Your task to perform on an android device: View the shopping cart on target.com. Add "jbl flip 4" to the cart on target.com, then select checkout. Image 0: 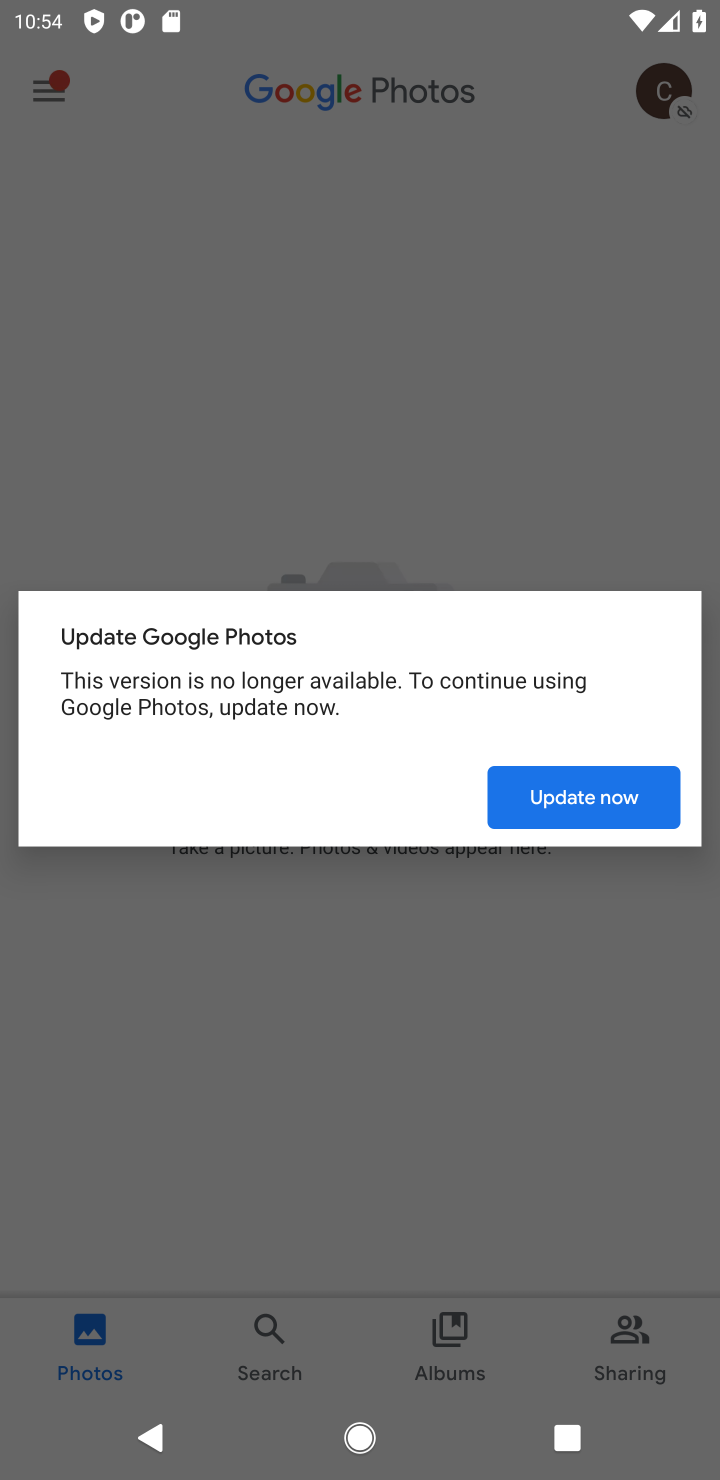
Step 0: press home button
Your task to perform on an android device: View the shopping cart on target.com. Add "jbl flip 4" to the cart on target.com, then select checkout. Image 1: 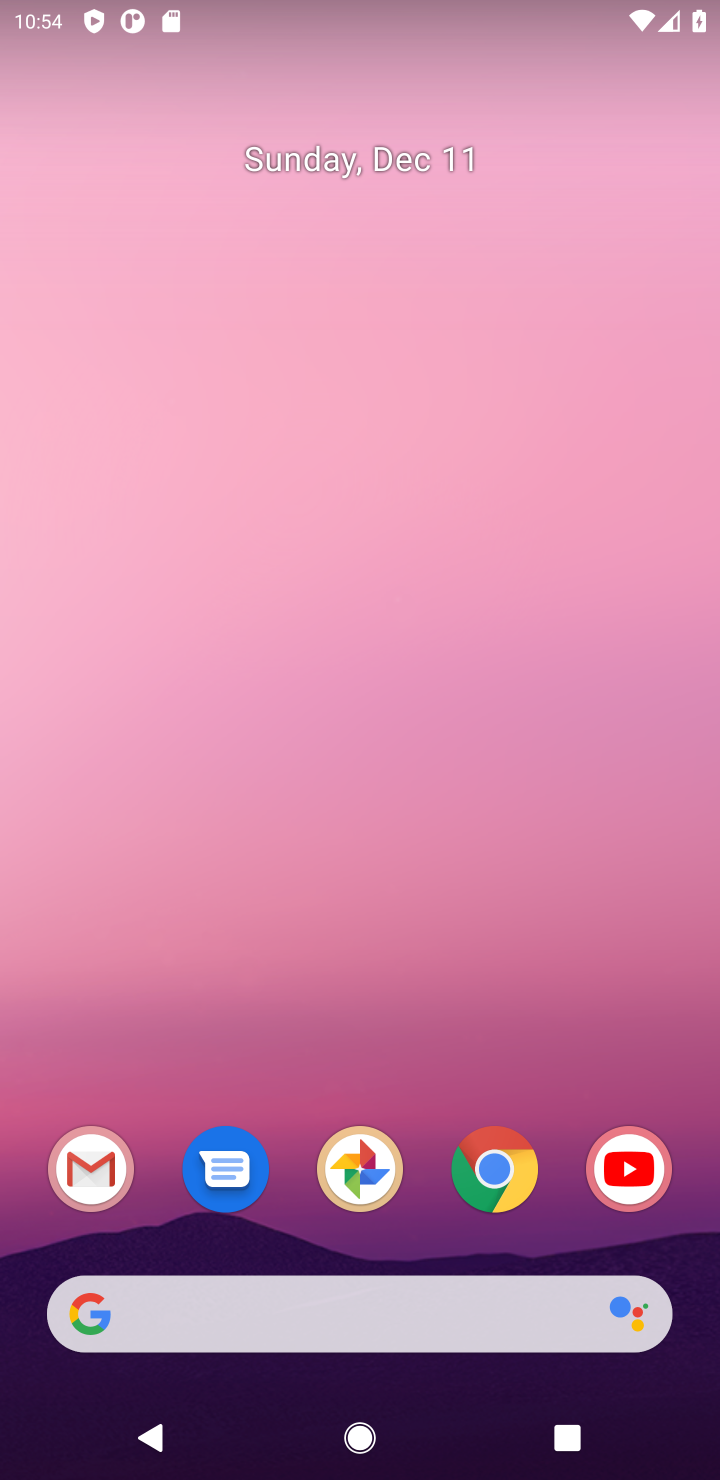
Step 1: click (468, 1142)
Your task to perform on an android device: View the shopping cart on target.com. Add "jbl flip 4" to the cart on target.com, then select checkout. Image 2: 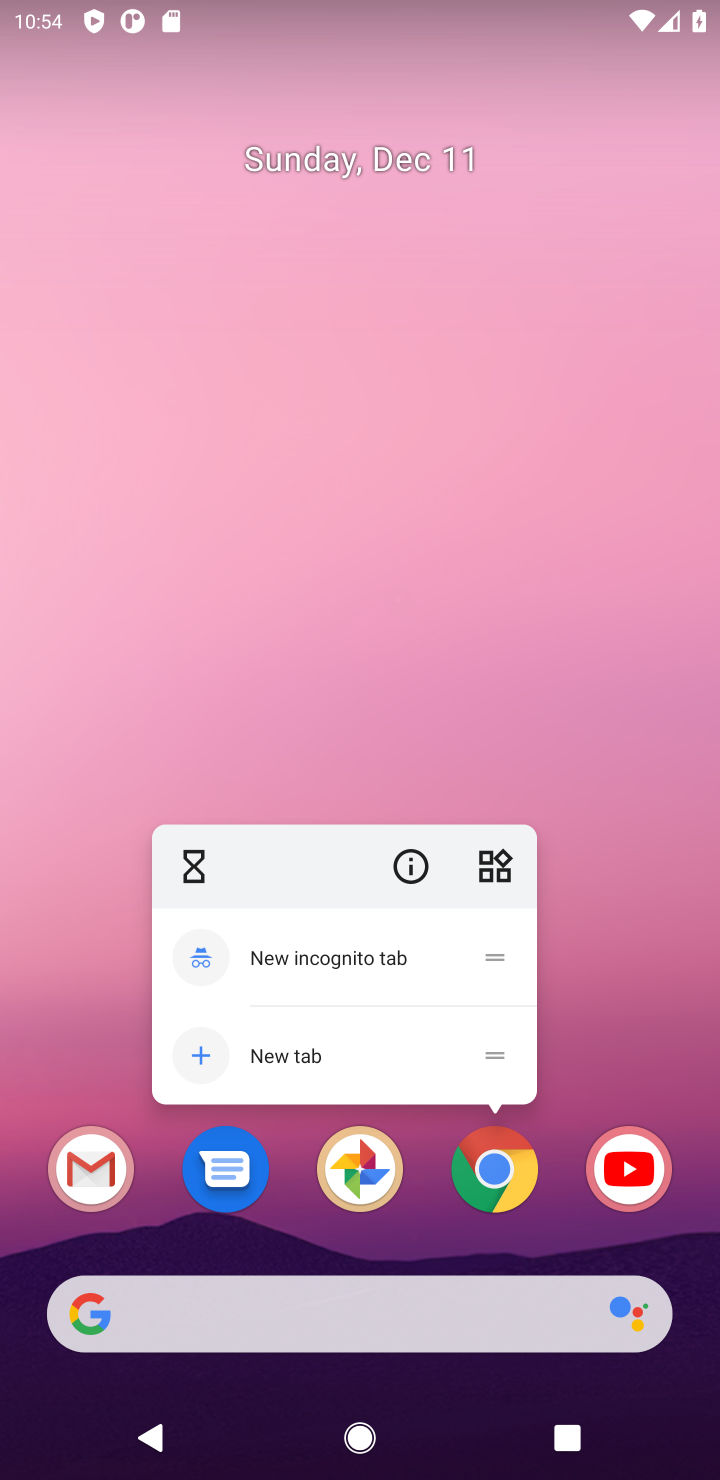
Step 2: click (486, 1172)
Your task to perform on an android device: View the shopping cart on target.com. Add "jbl flip 4" to the cart on target.com, then select checkout. Image 3: 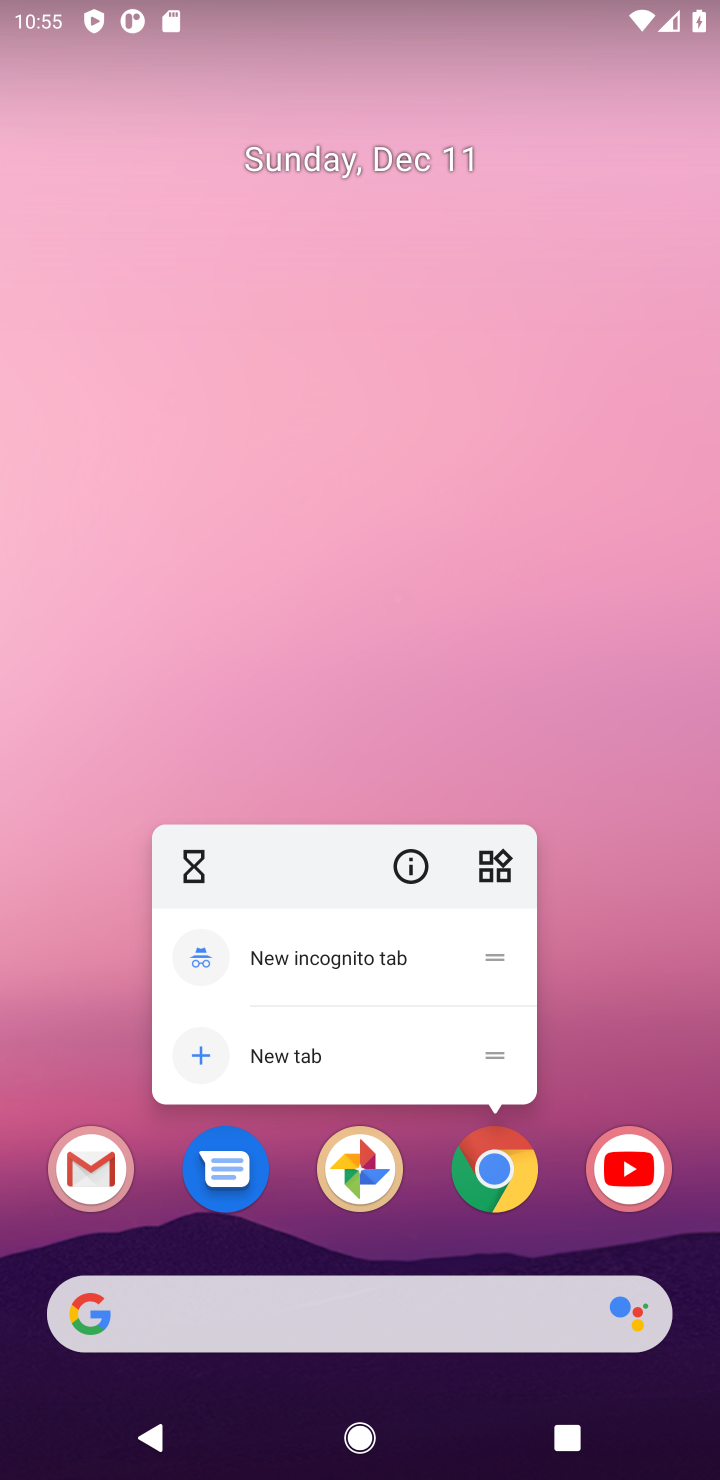
Step 3: click (488, 1172)
Your task to perform on an android device: View the shopping cart on target.com. Add "jbl flip 4" to the cart on target.com, then select checkout. Image 4: 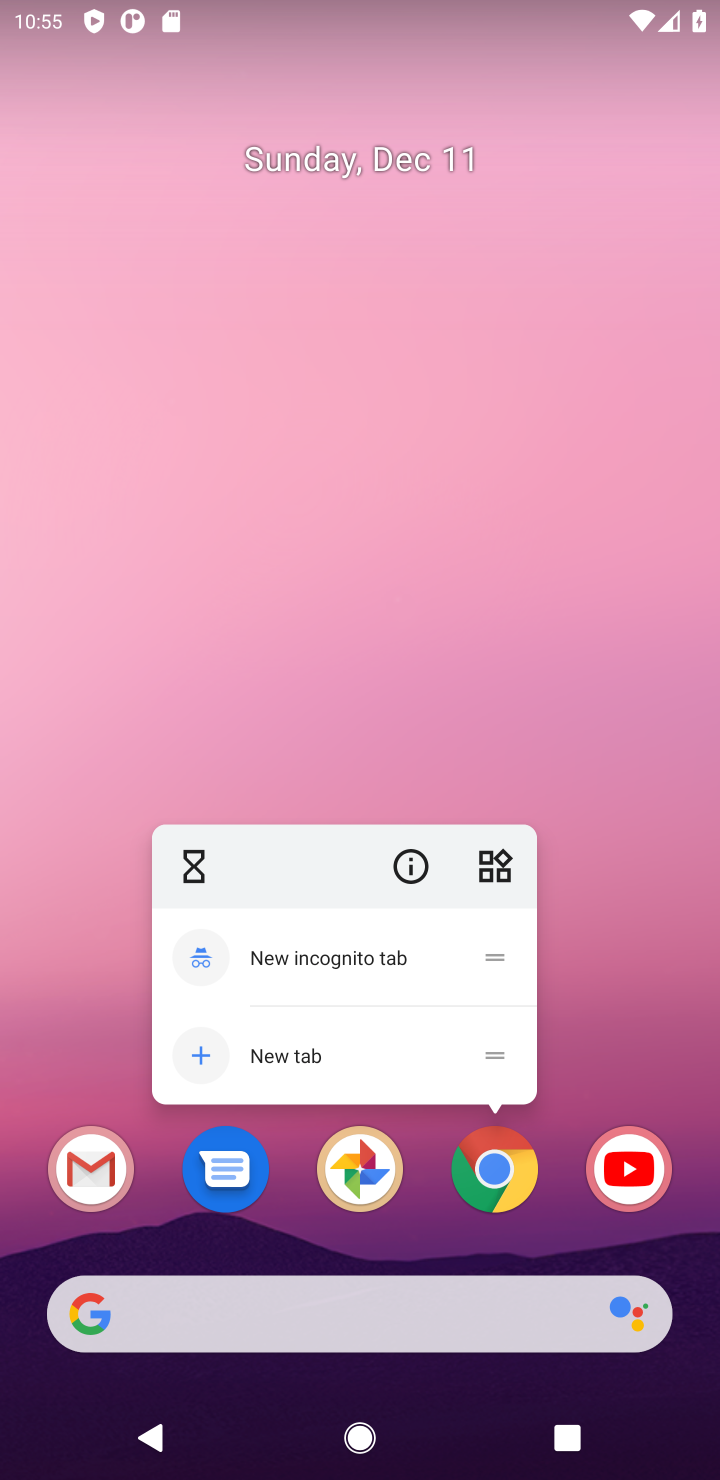
Step 4: click (633, 991)
Your task to perform on an android device: View the shopping cart on target.com. Add "jbl flip 4" to the cart on target.com, then select checkout. Image 5: 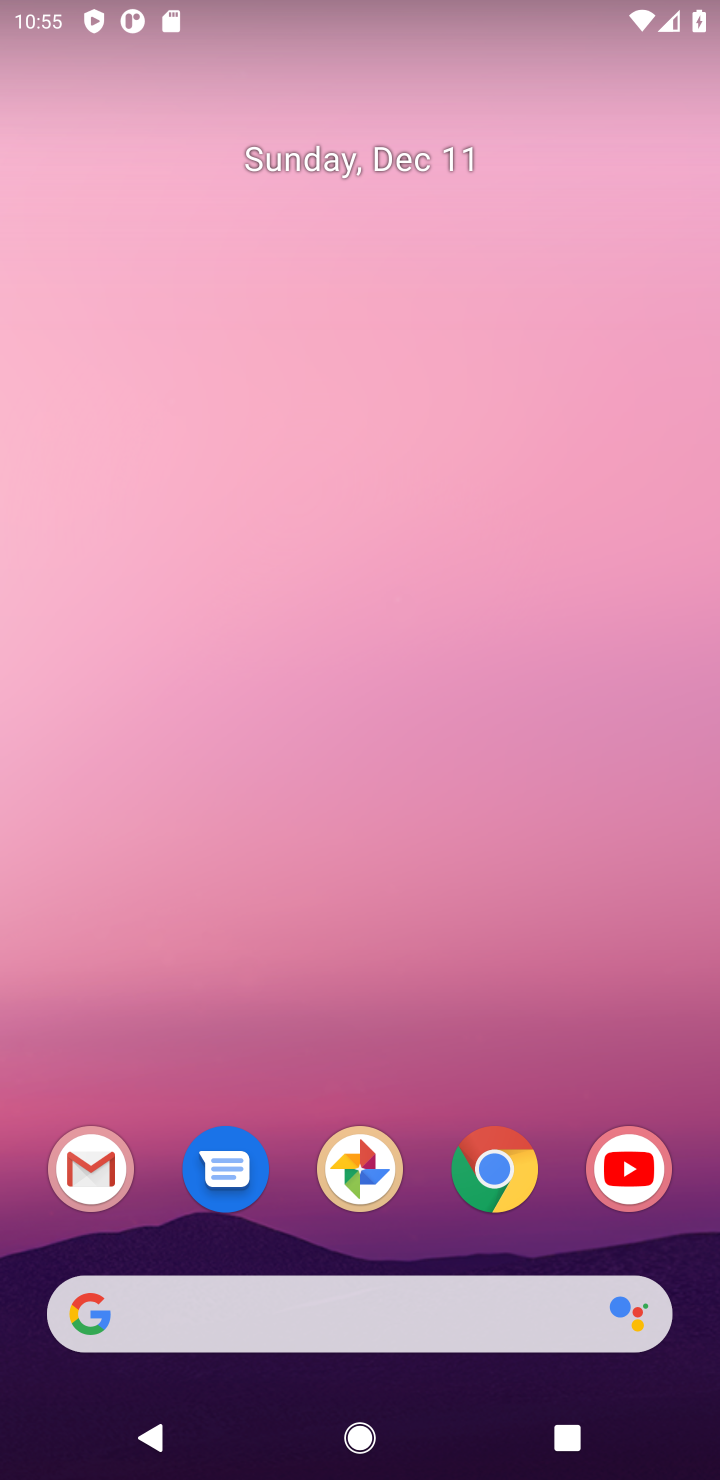
Step 5: click (508, 1179)
Your task to perform on an android device: View the shopping cart on target.com. Add "jbl flip 4" to the cart on target.com, then select checkout. Image 6: 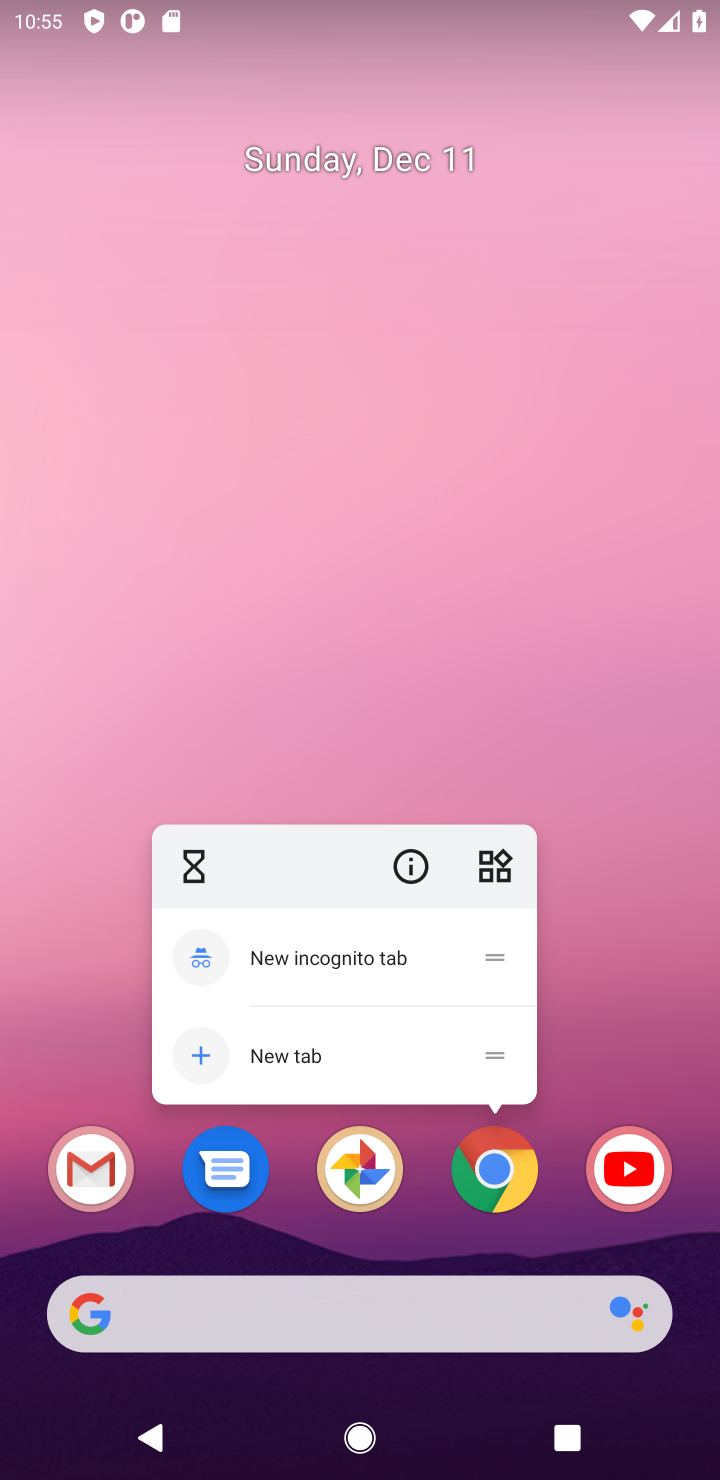
Step 6: click (508, 1179)
Your task to perform on an android device: View the shopping cart on target.com. Add "jbl flip 4" to the cart on target.com, then select checkout. Image 7: 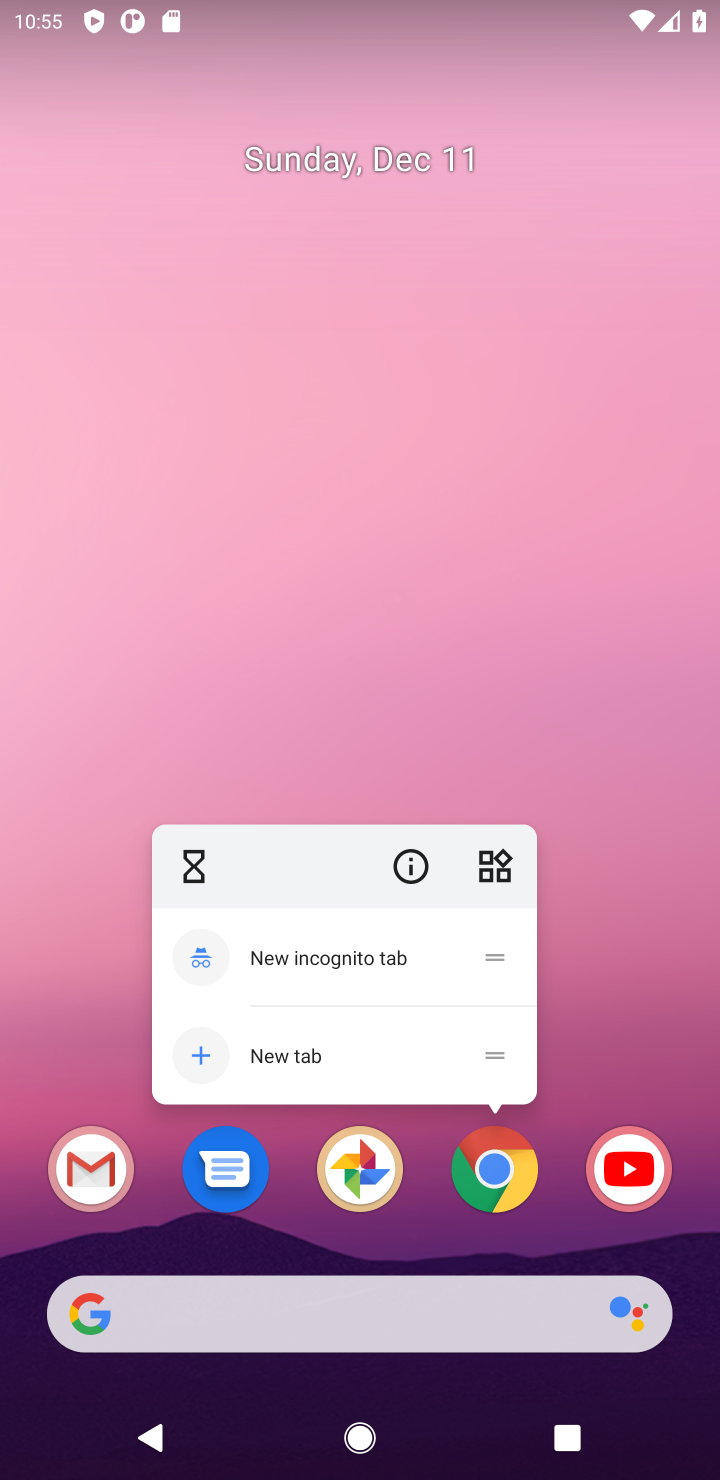
Step 7: click (500, 1176)
Your task to perform on an android device: View the shopping cart on target.com. Add "jbl flip 4" to the cart on target.com, then select checkout. Image 8: 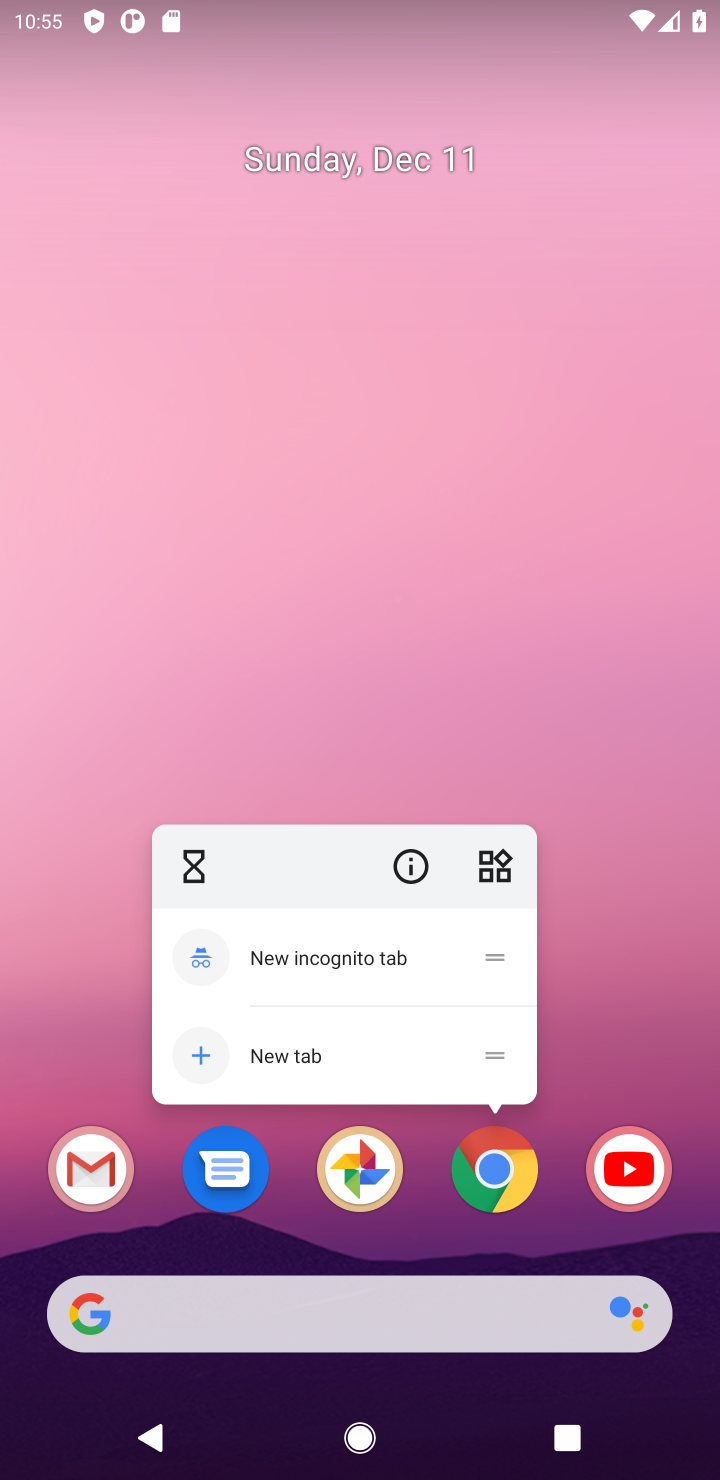
Step 8: click (500, 1176)
Your task to perform on an android device: View the shopping cart on target.com. Add "jbl flip 4" to the cart on target.com, then select checkout. Image 9: 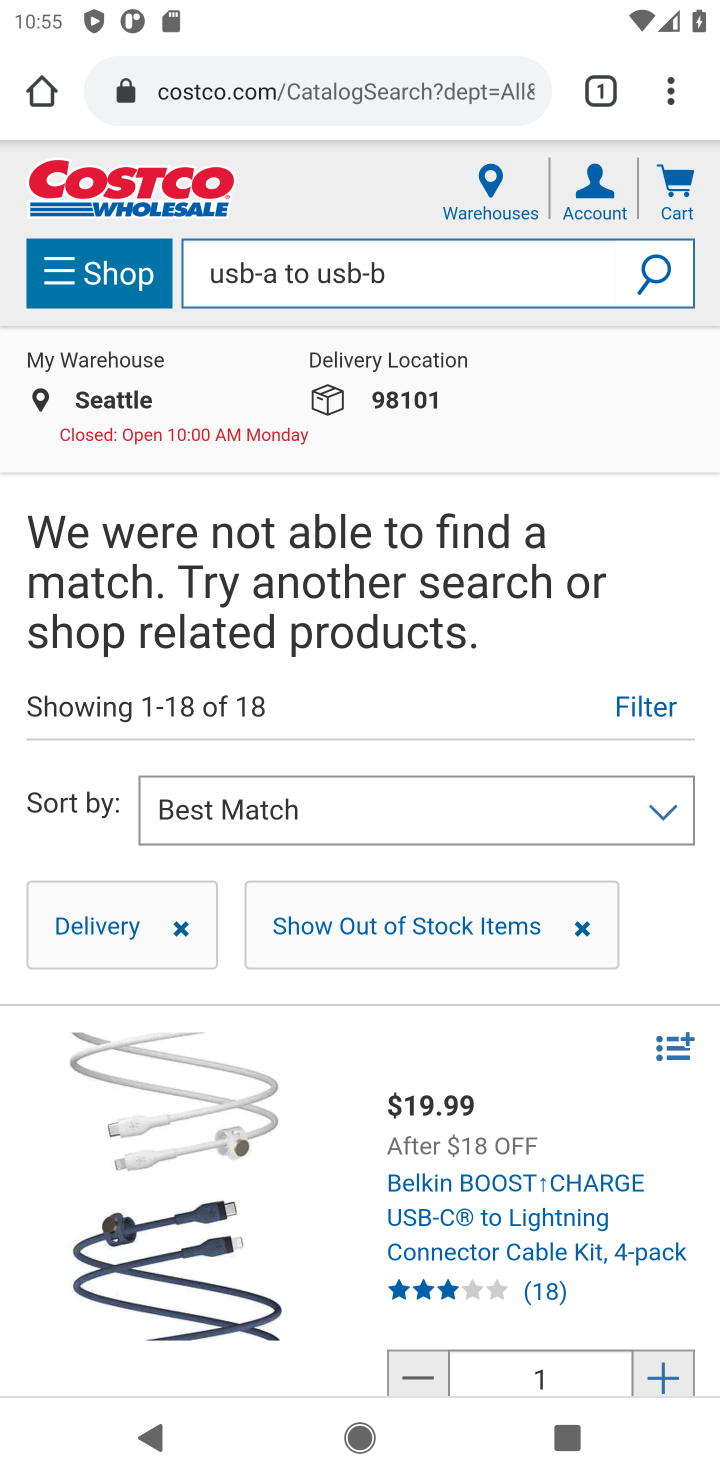
Step 9: click (319, 91)
Your task to perform on an android device: View the shopping cart on target.com. Add "jbl flip 4" to the cart on target.com, then select checkout. Image 10: 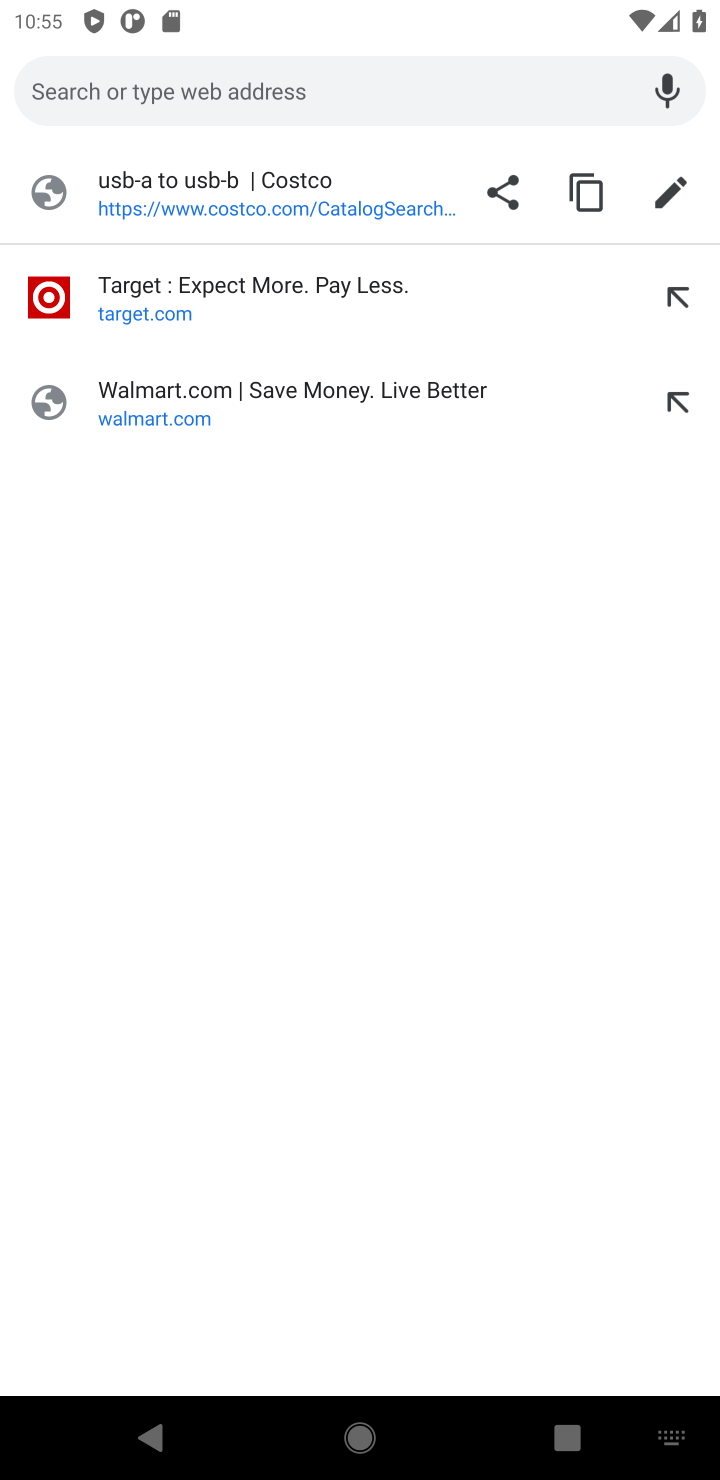
Step 10: click (155, 315)
Your task to perform on an android device: View the shopping cart on target.com. Add "jbl flip 4" to the cart on target.com, then select checkout. Image 11: 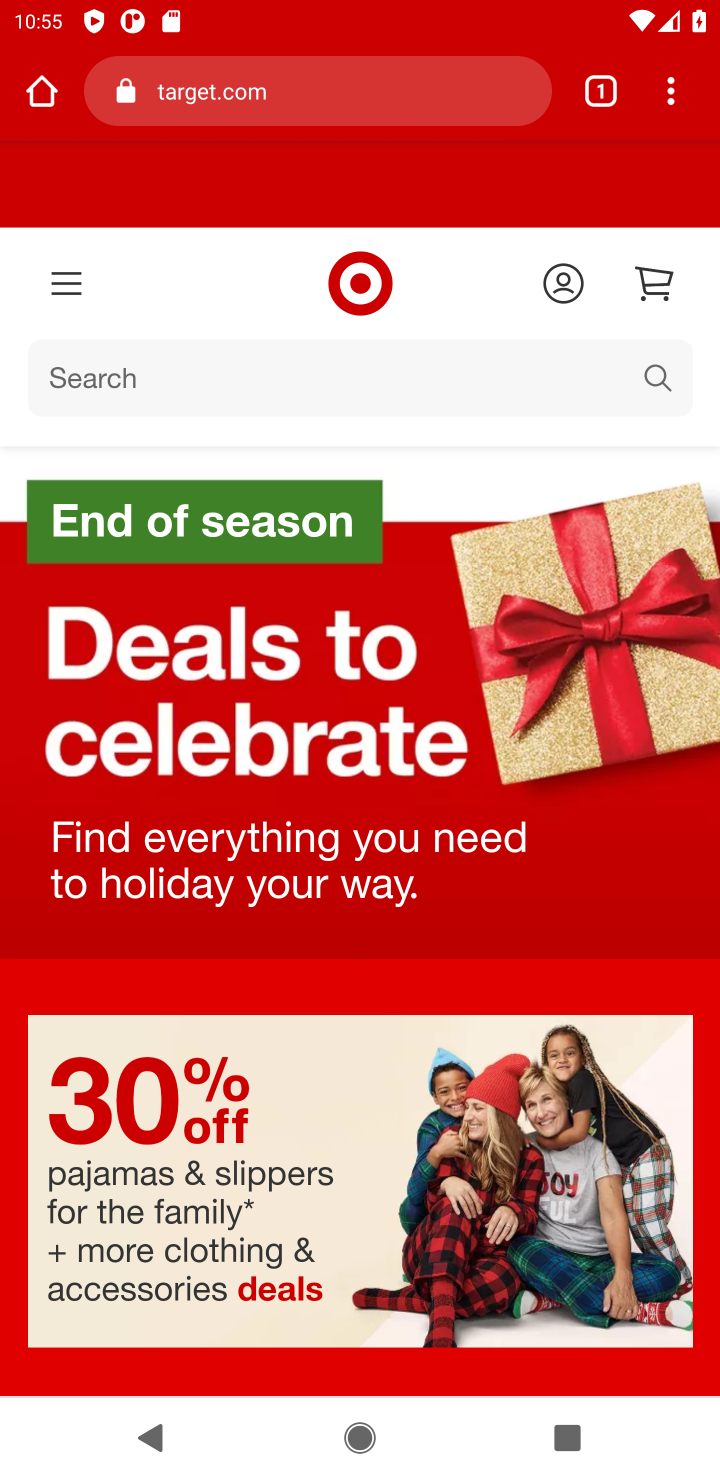
Step 11: click (656, 273)
Your task to perform on an android device: View the shopping cart on target.com. Add "jbl flip 4" to the cart on target.com, then select checkout. Image 12: 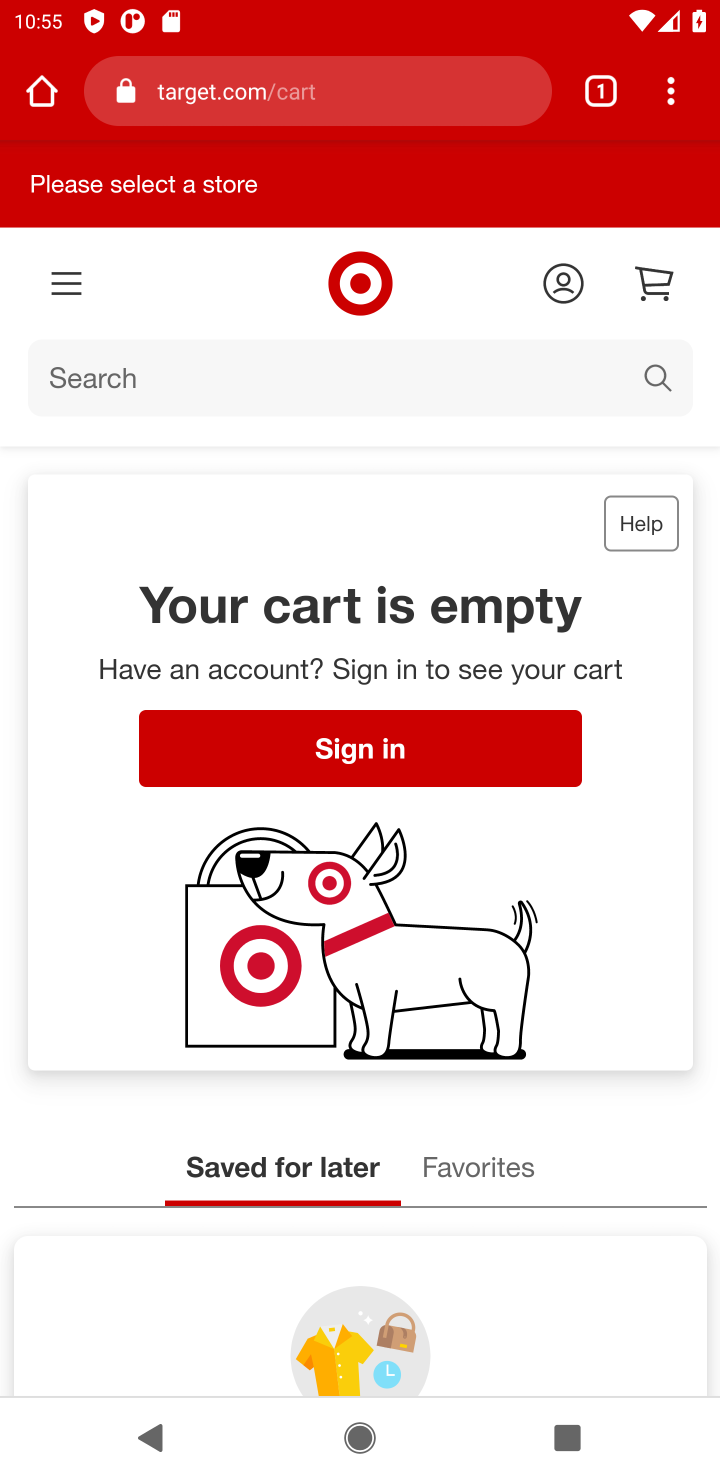
Step 12: click (102, 379)
Your task to perform on an android device: View the shopping cart on target.com. Add "jbl flip 4" to the cart on target.com, then select checkout. Image 13: 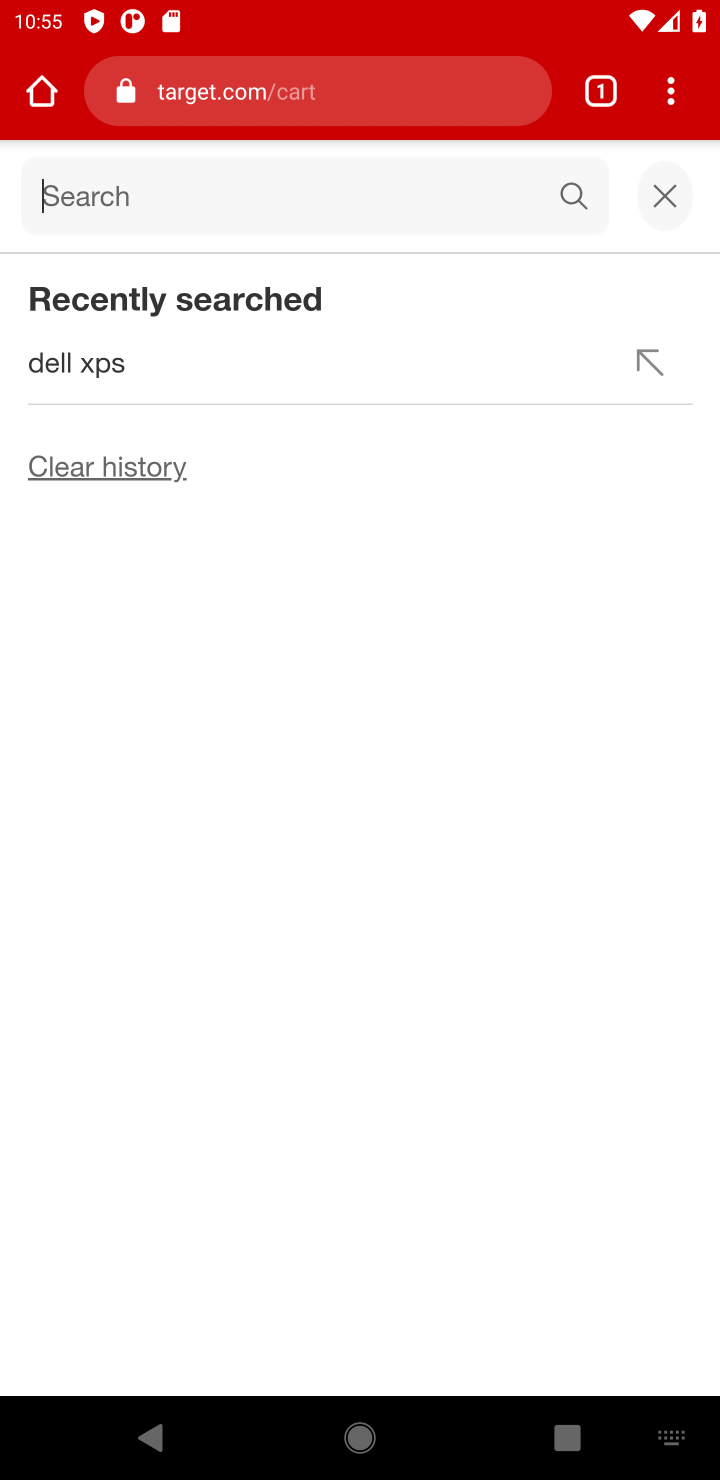
Step 13: type "jbl flip 4"
Your task to perform on an android device: View the shopping cart on target.com. Add "jbl flip 4" to the cart on target.com, then select checkout. Image 14: 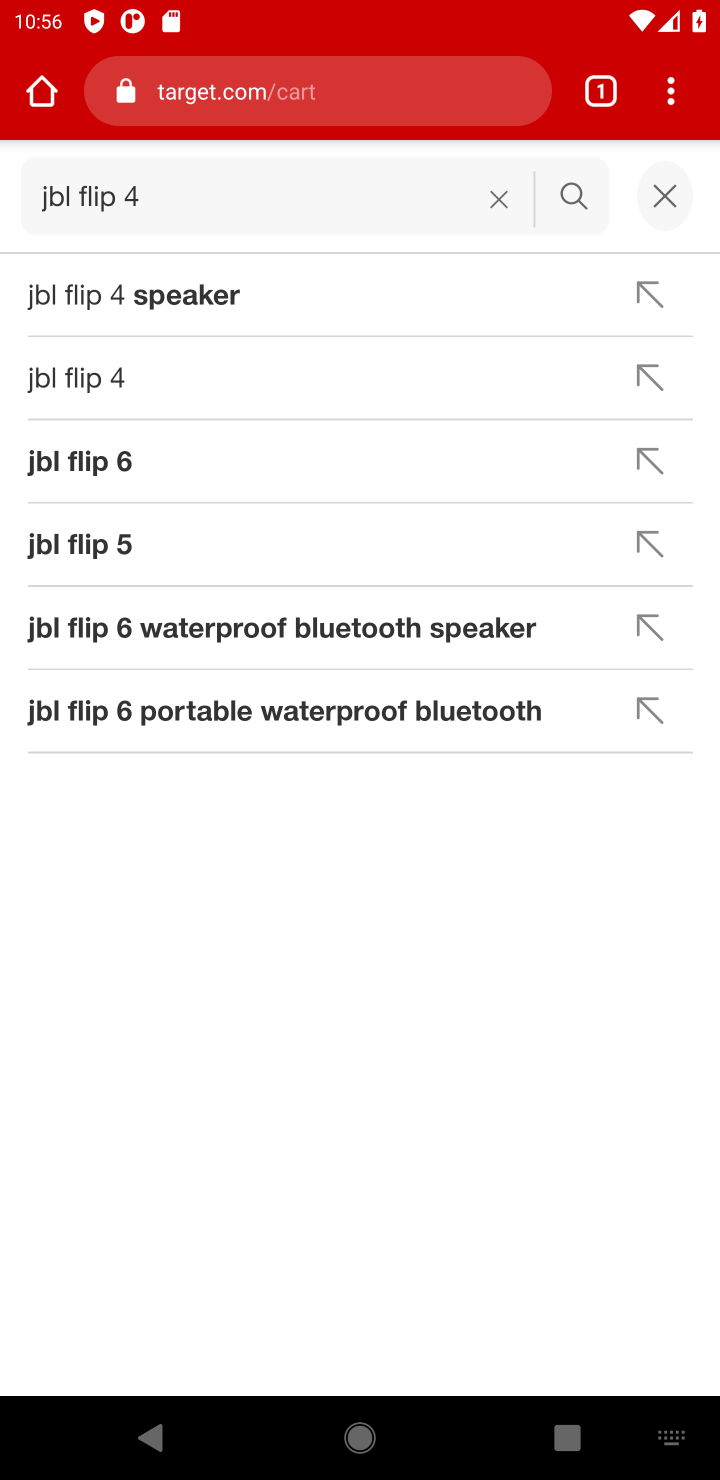
Step 14: click (79, 378)
Your task to perform on an android device: View the shopping cart on target.com. Add "jbl flip 4" to the cart on target.com, then select checkout. Image 15: 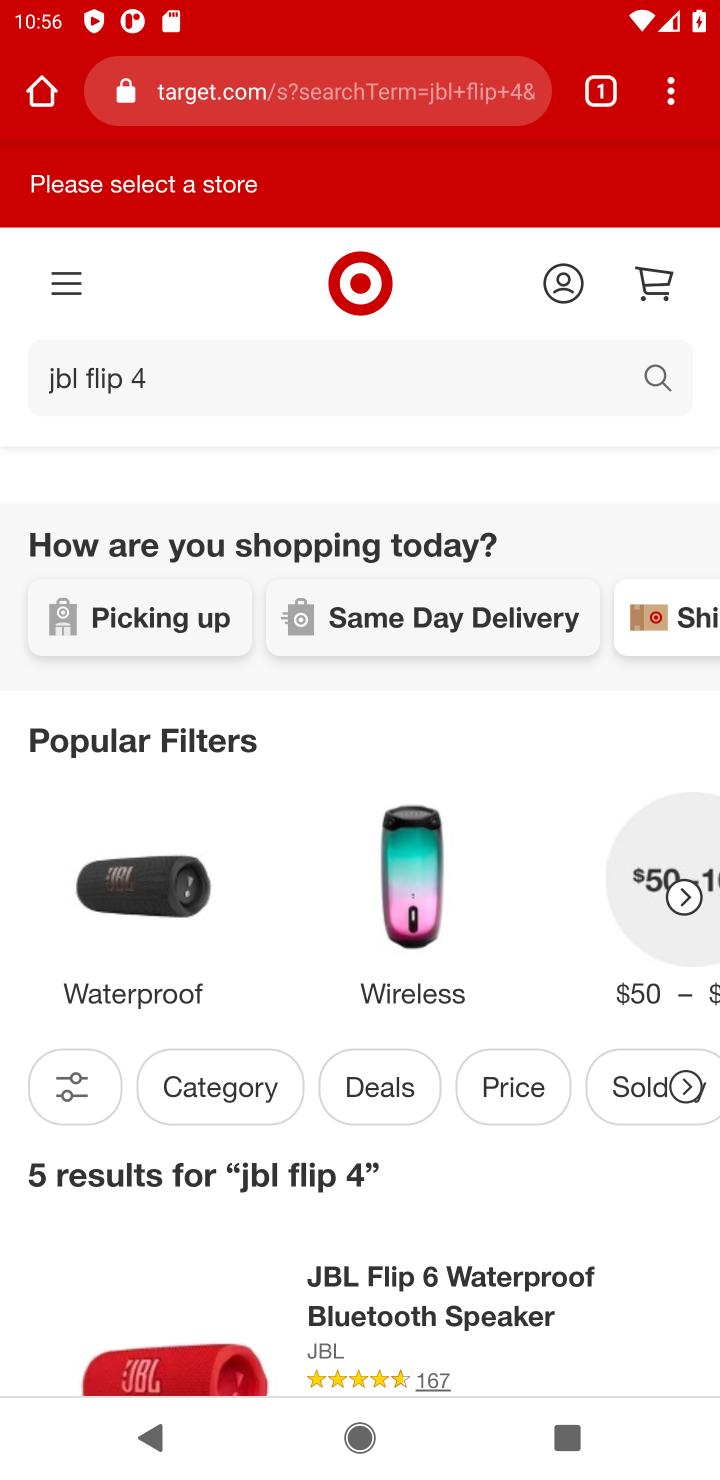
Step 15: task complete